Your task to perform on an android device: Check the news Image 0: 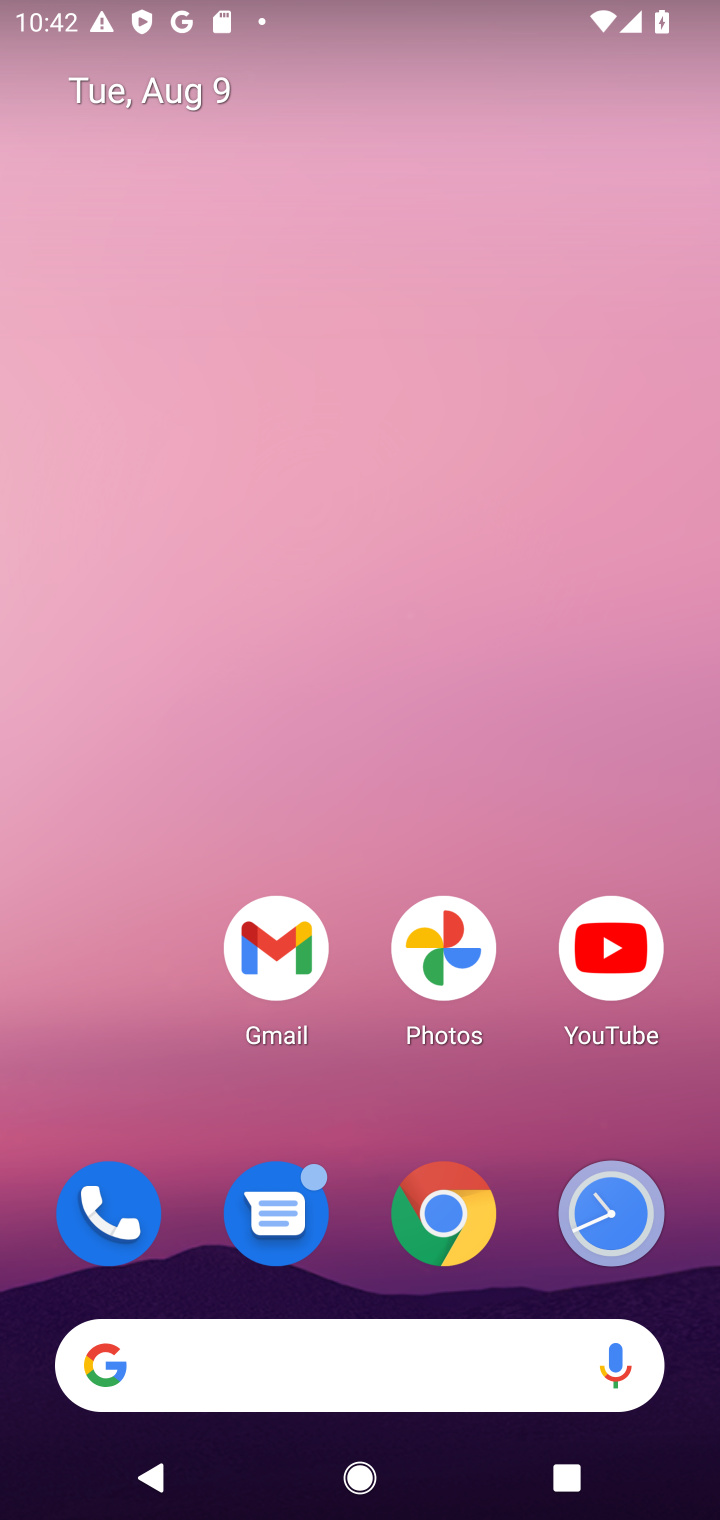
Step 0: drag from (348, 1231) to (363, 13)
Your task to perform on an android device: Check the news Image 1: 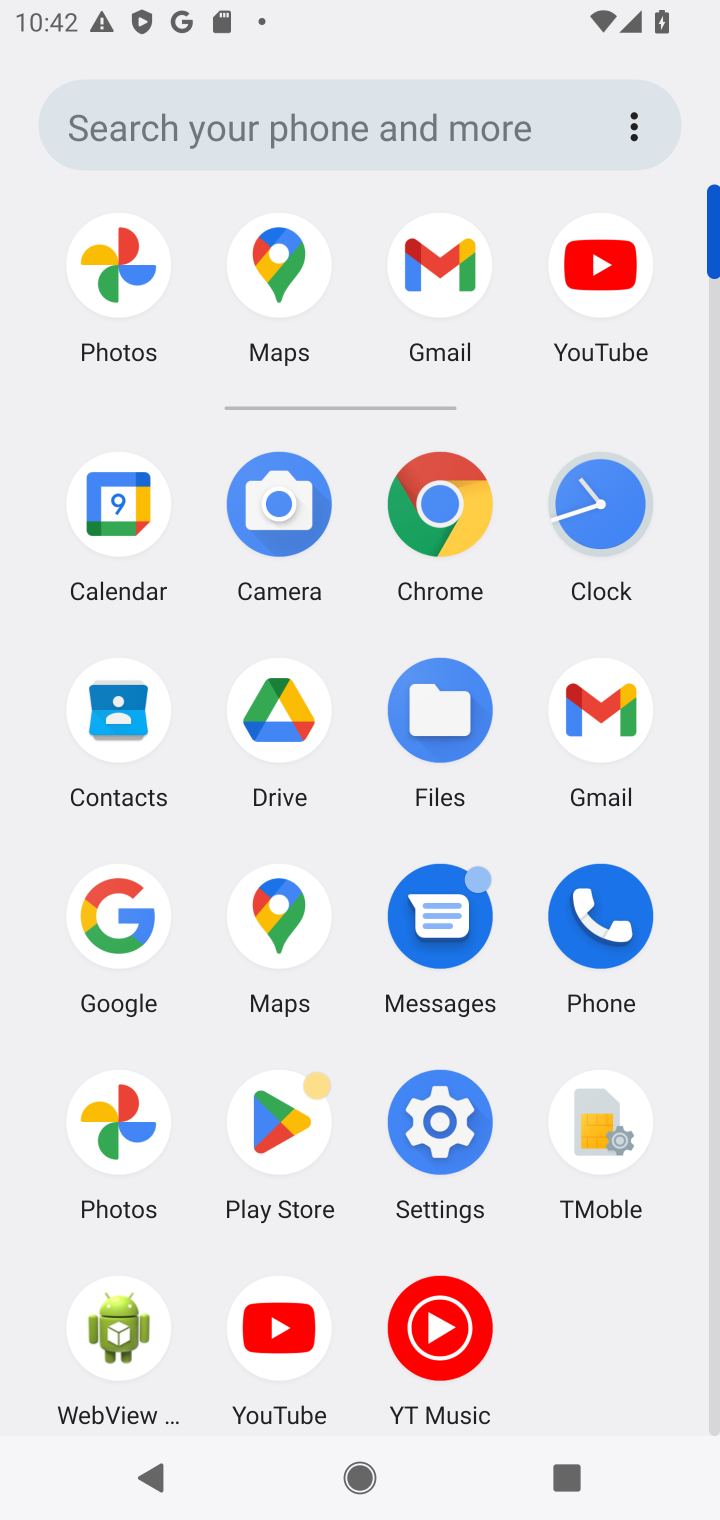
Step 1: click (152, 913)
Your task to perform on an android device: Check the news Image 2: 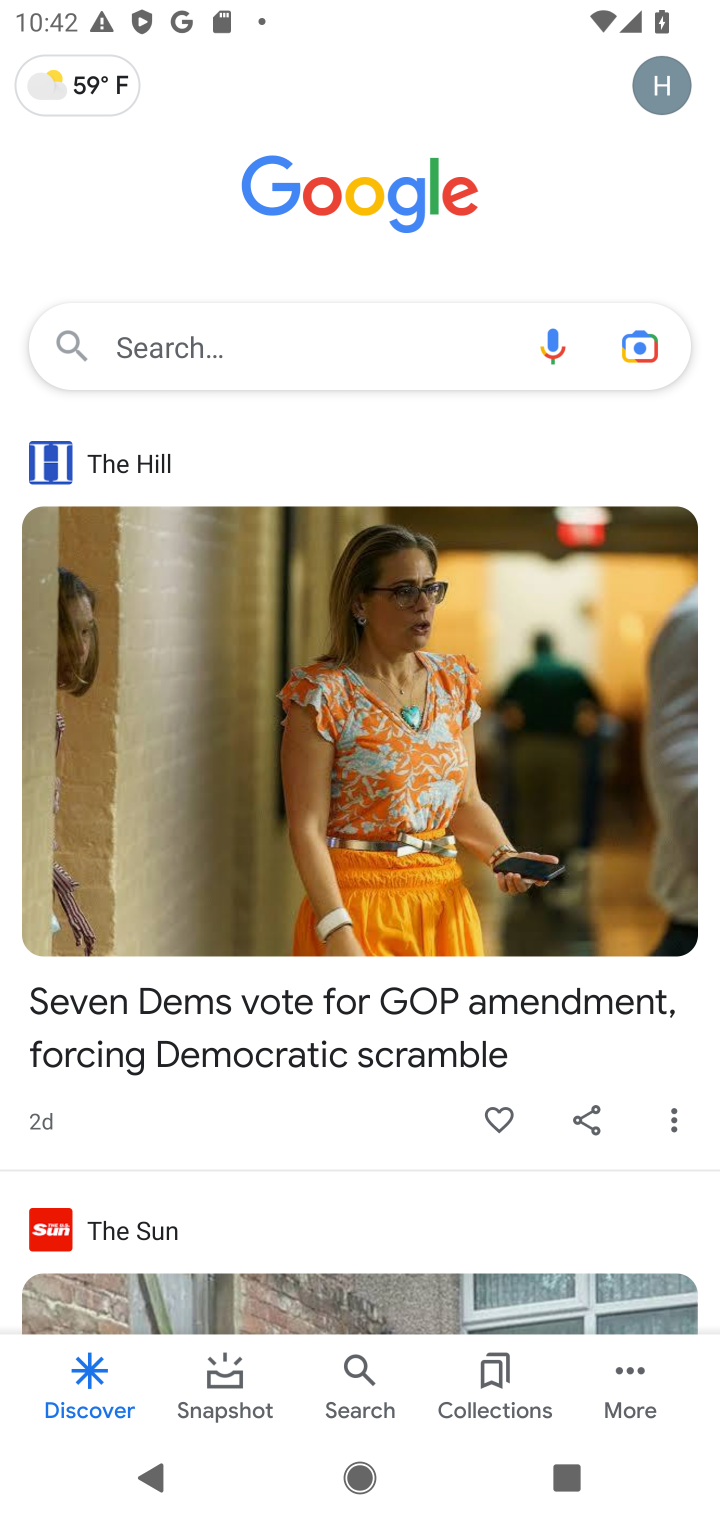
Step 2: click (134, 346)
Your task to perform on an android device: Check the news Image 3: 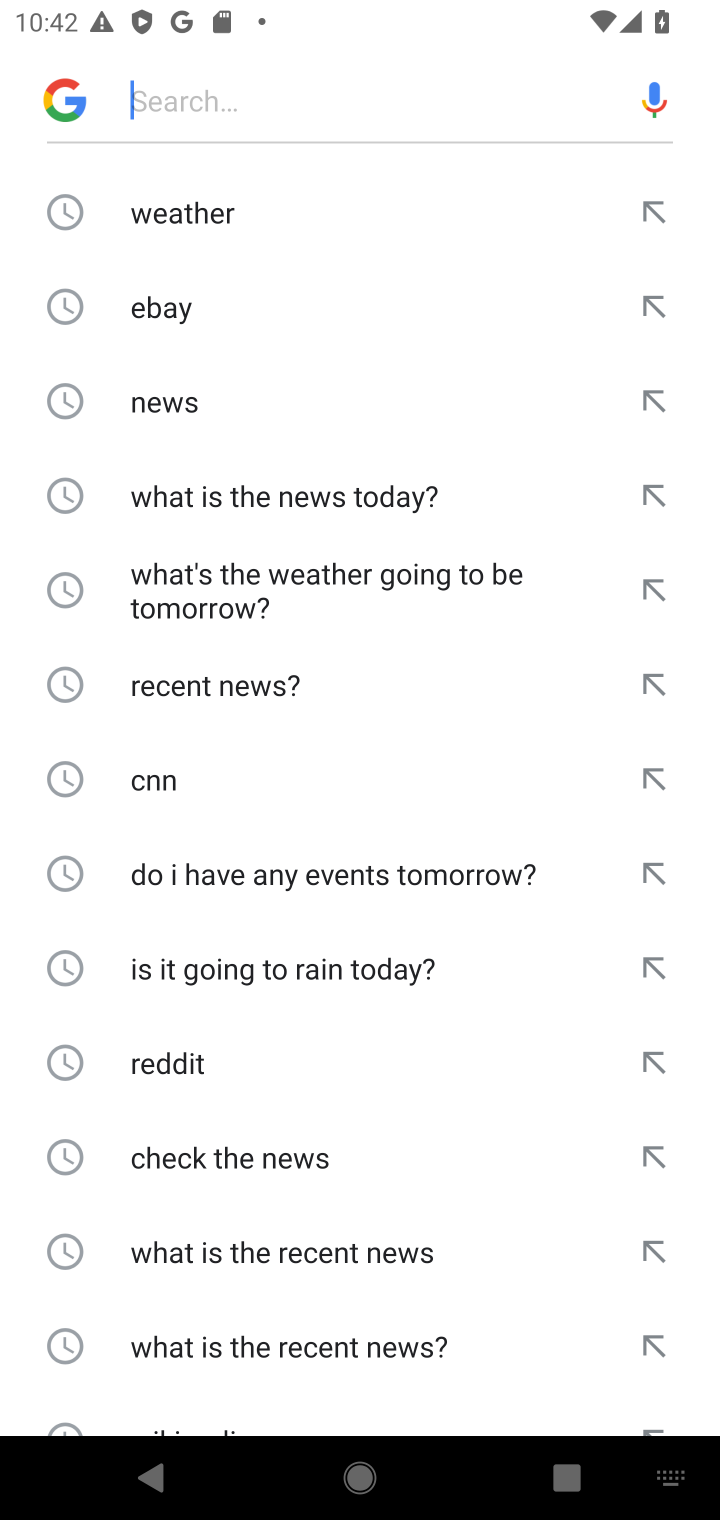
Step 3: click (168, 404)
Your task to perform on an android device: Check the news Image 4: 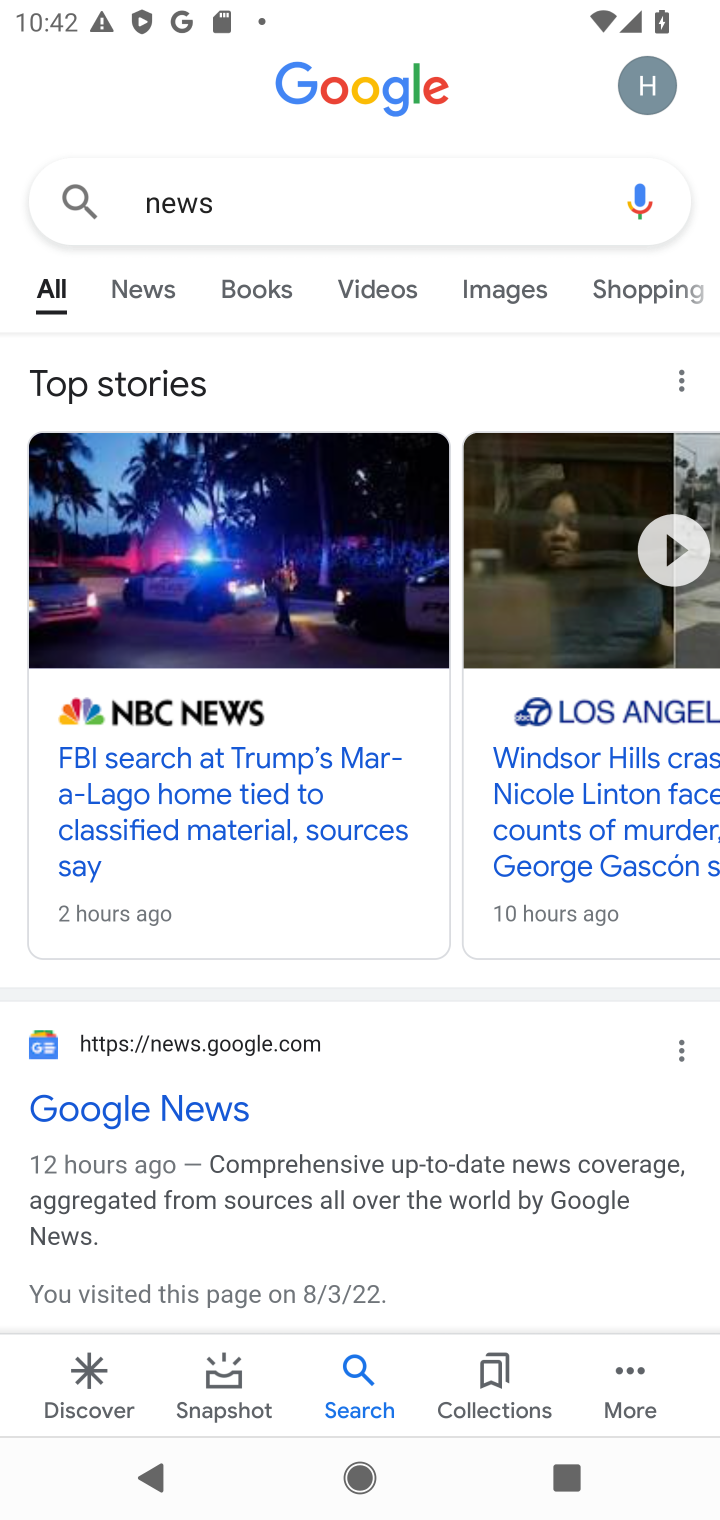
Step 4: task complete